Your task to perform on an android device: Open calendar and show me the third week of next month Image 0: 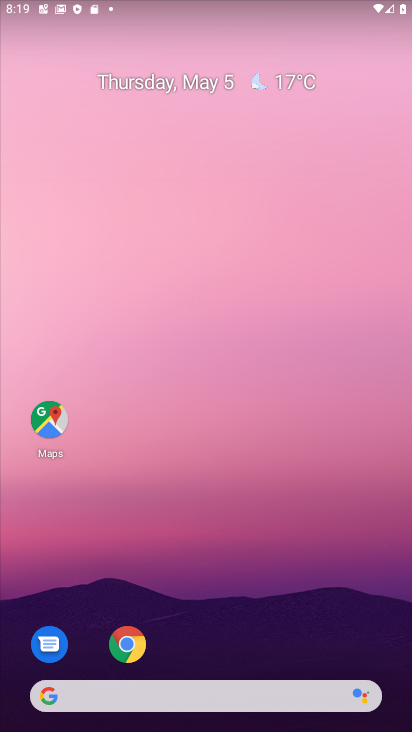
Step 0: drag from (221, 648) to (220, 418)
Your task to perform on an android device: Open calendar and show me the third week of next month Image 1: 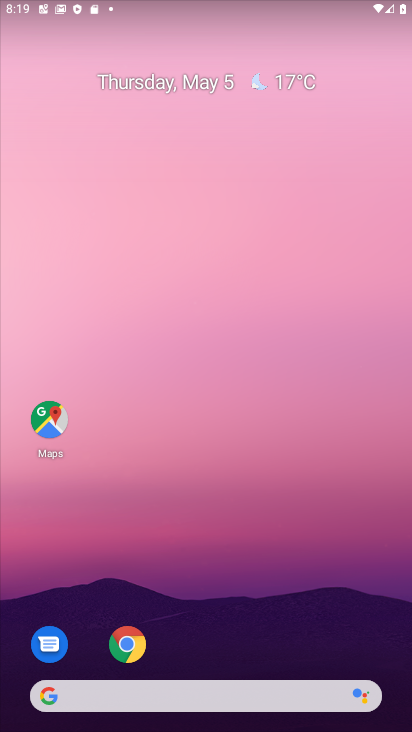
Step 1: drag from (242, 631) to (206, 113)
Your task to perform on an android device: Open calendar and show me the third week of next month Image 2: 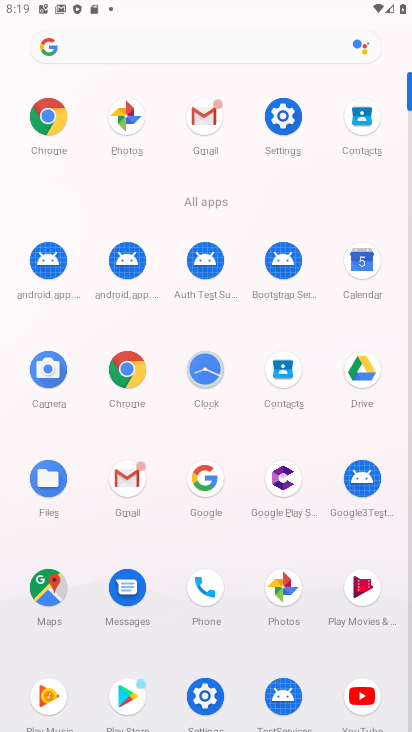
Step 2: click (354, 276)
Your task to perform on an android device: Open calendar and show me the third week of next month Image 3: 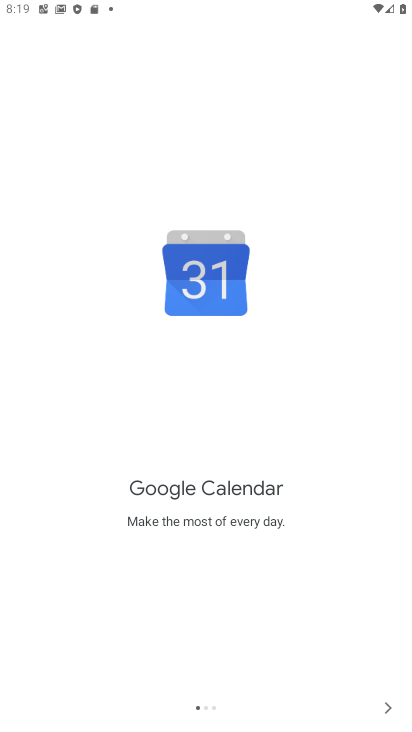
Step 3: click (398, 711)
Your task to perform on an android device: Open calendar and show me the third week of next month Image 4: 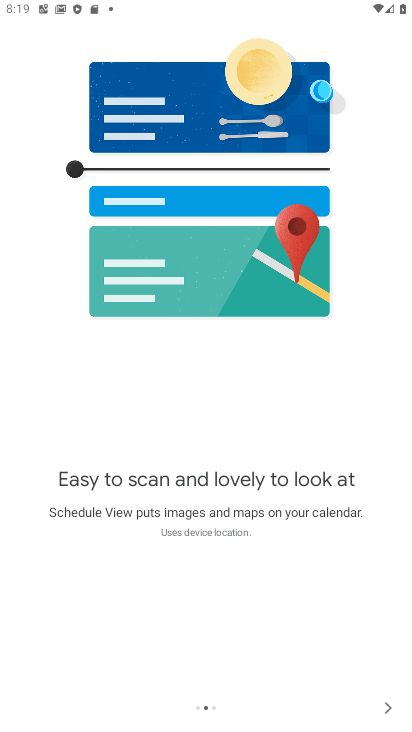
Step 4: click (395, 711)
Your task to perform on an android device: Open calendar and show me the third week of next month Image 5: 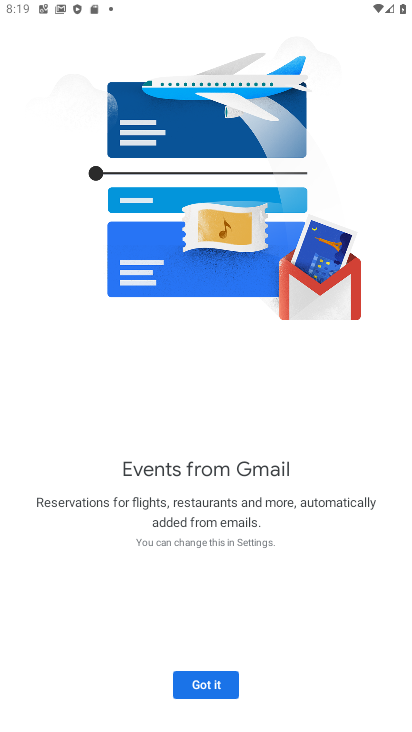
Step 5: click (395, 711)
Your task to perform on an android device: Open calendar and show me the third week of next month Image 6: 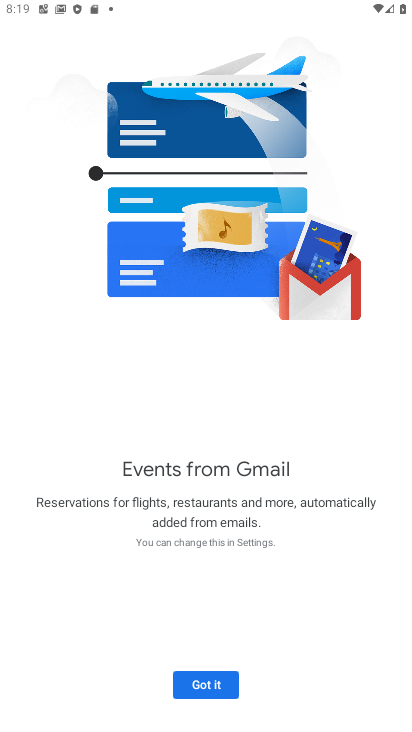
Step 6: click (230, 697)
Your task to perform on an android device: Open calendar and show me the third week of next month Image 7: 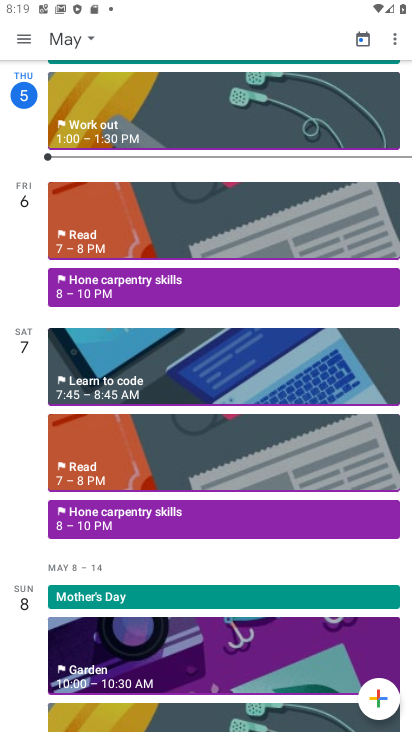
Step 7: click (27, 29)
Your task to perform on an android device: Open calendar and show me the third week of next month Image 8: 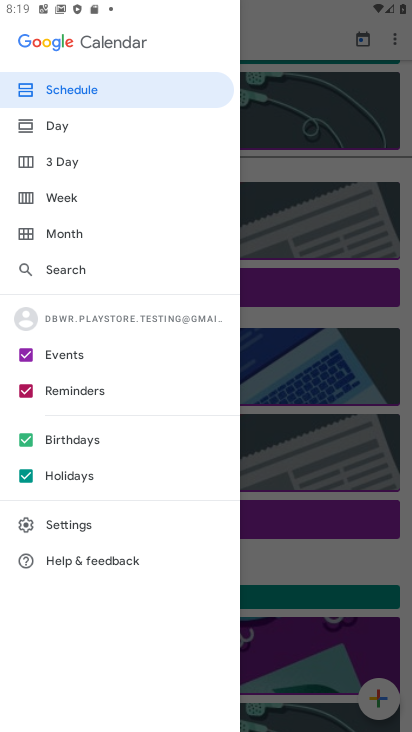
Step 8: click (94, 208)
Your task to perform on an android device: Open calendar and show me the third week of next month Image 9: 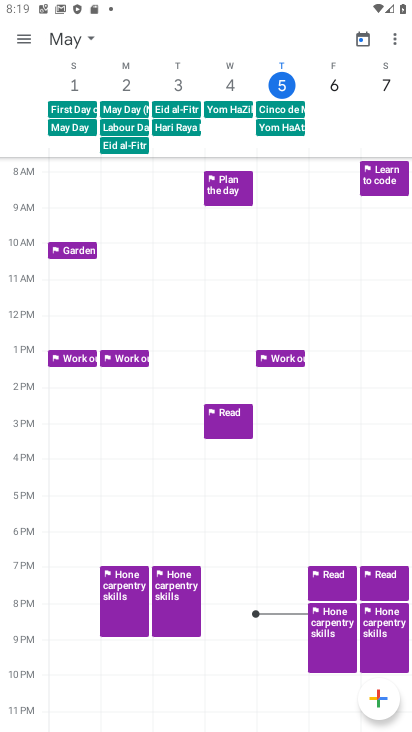
Step 9: click (86, 43)
Your task to perform on an android device: Open calendar and show me the third week of next month Image 10: 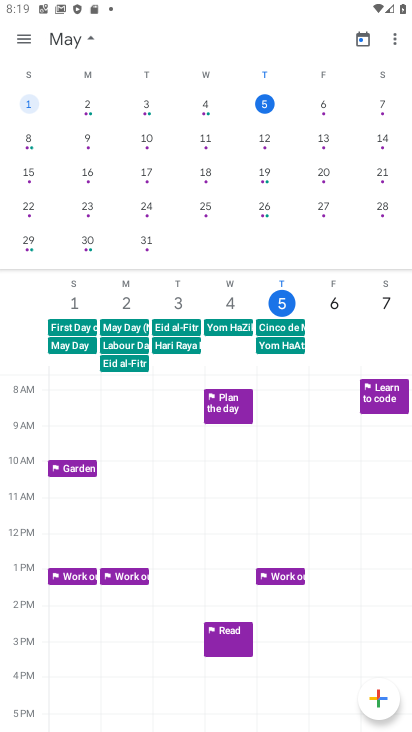
Step 10: drag from (375, 190) to (143, 176)
Your task to perform on an android device: Open calendar and show me the third week of next month Image 11: 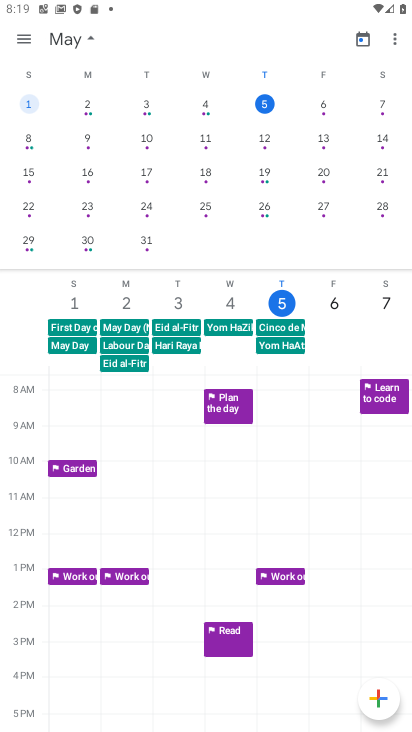
Step 11: drag from (353, 186) to (7, 166)
Your task to perform on an android device: Open calendar and show me the third week of next month Image 12: 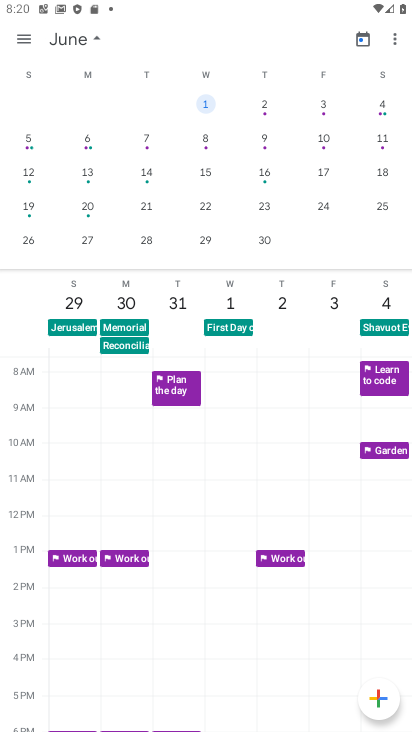
Step 12: click (259, 206)
Your task to perform on an android device: Open calendar and show me the third week of next month Image 13: 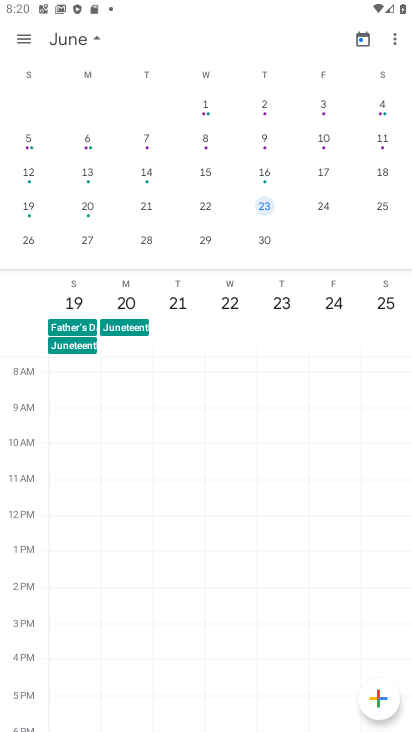
Step 13: task complete